Your task to perform on an android device: Open the stopwatch Image 0: 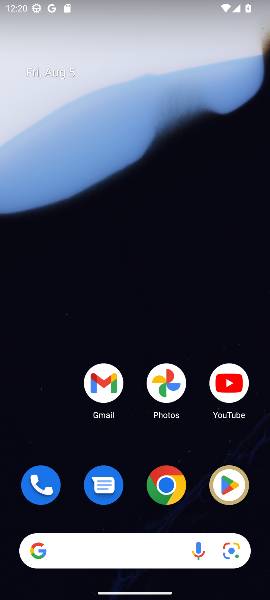
Step 0: drag from (36, 414) to (61, 53)
Your task to perform on an android device: Open the stopwatch Image 1: 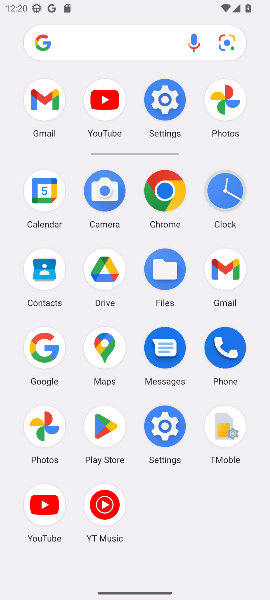
Step 1: click (220, 192)
Your task to perform on an android device: Open the stopwatch Image 2: 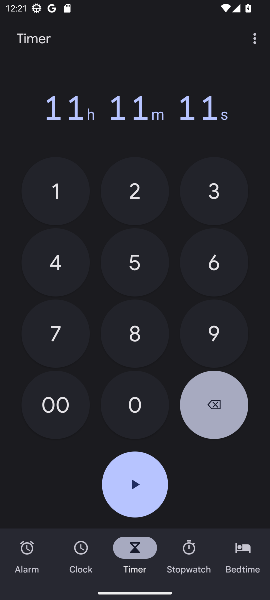
Step 2: click (184, 547)
Your task to perform on an android device: Open the stopwatch Image 3: 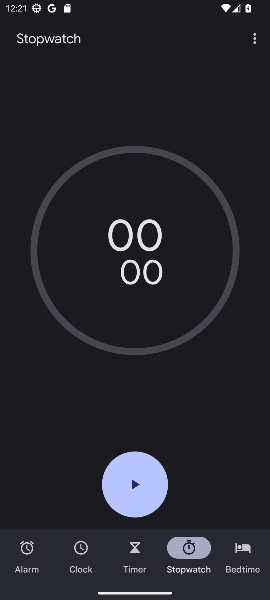
Step 3: task complete